Your task to perform on an android device: Show me productivity apps on the Play Store Image 0: 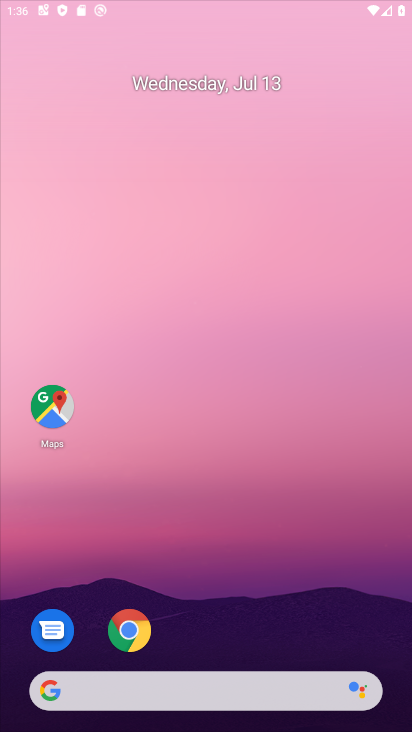
Step 0: press home button
Your task to perform on an android device: Show me productivity apps on the Play Store Image 1: 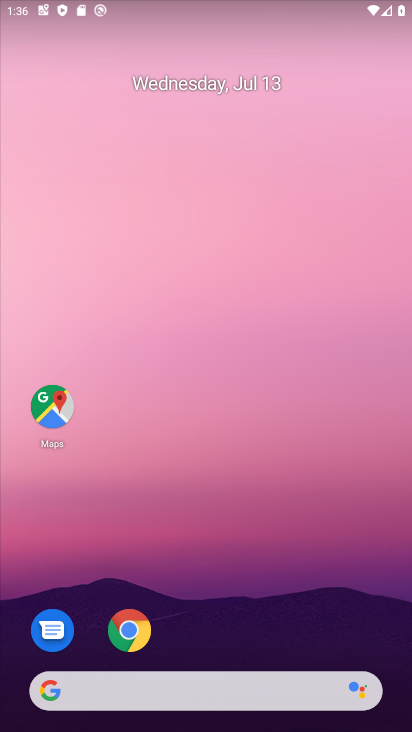
Step 1: drag from (296, 584) to (315, 67)
Your task to perform on an android device: Show me productivity apps on the Play Store Image 2: 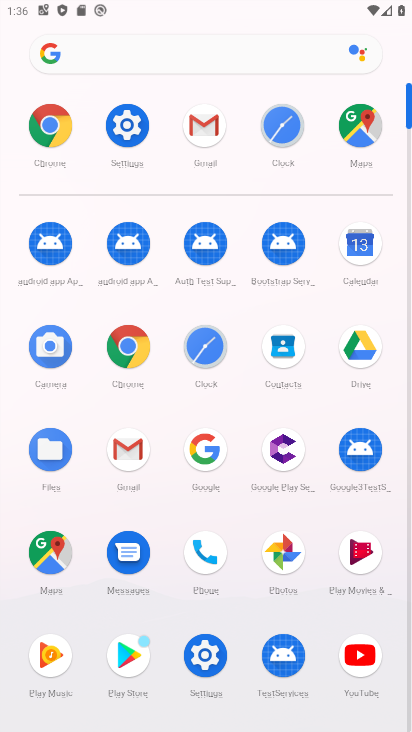
Step 2: click (132, 656)
Your task to perform on an android device: Show me productivity apps on the Play Store Image 3: 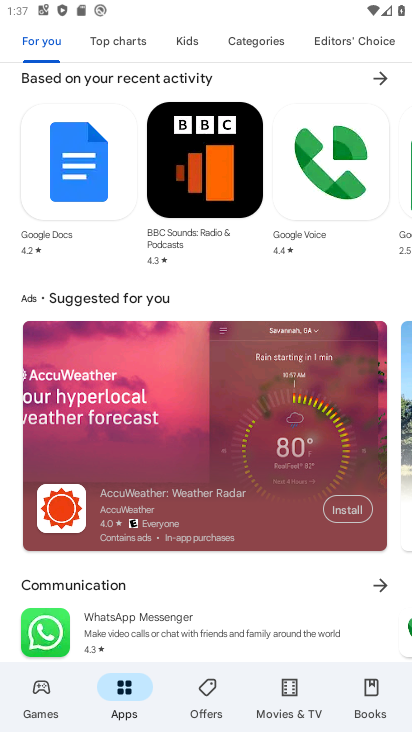
Step 3: task complete